Your task to perform on an android device: uninstall "Truecaller" Image 0: 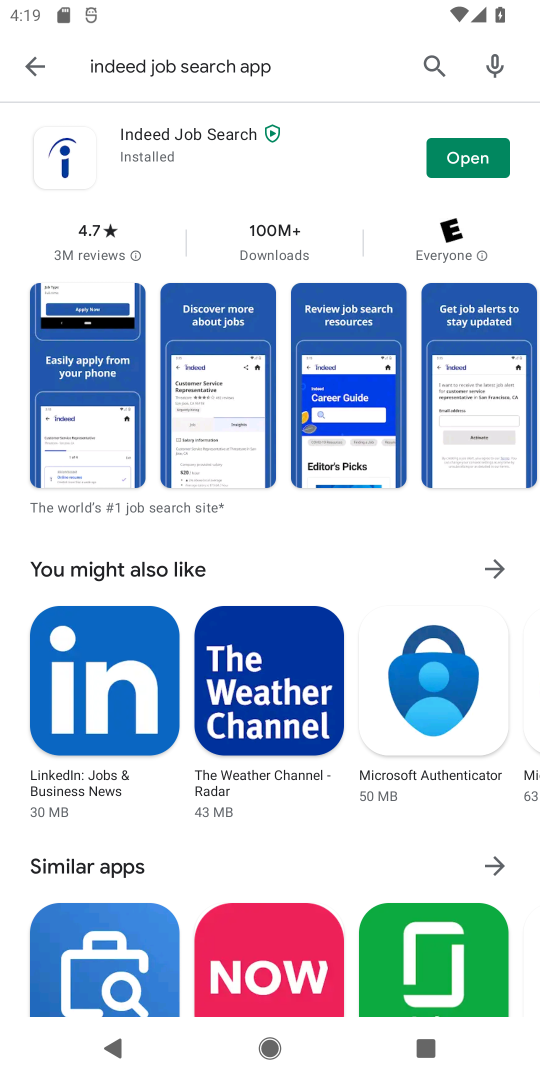
Step 0: click (434, 71)
Your task to perform on an android device: uninstall "Truecaller" Image 1: 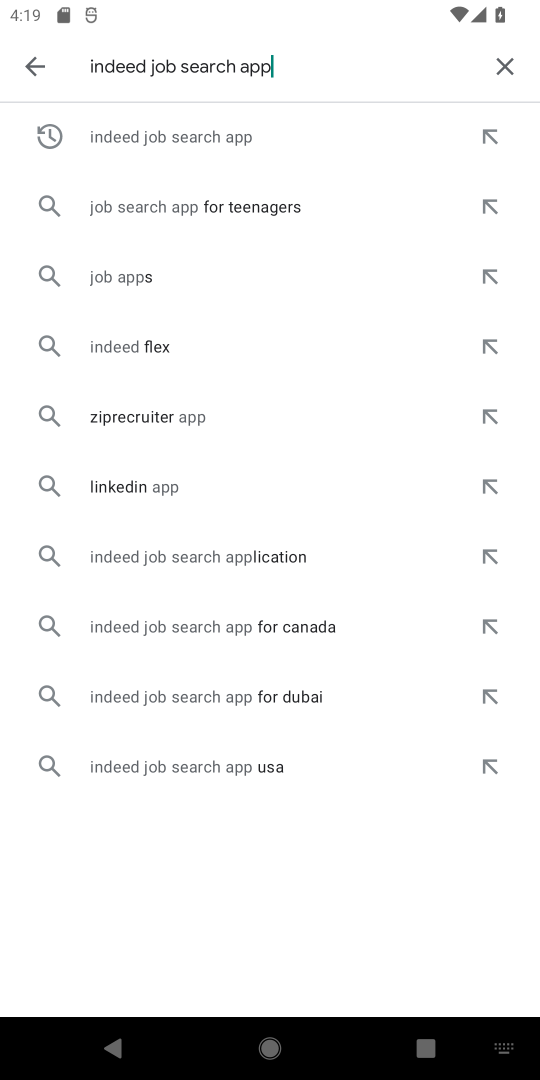
Step 1: click (503, 69)
Your task to perform on an android device: uninstall "Truecaller" Image 2: 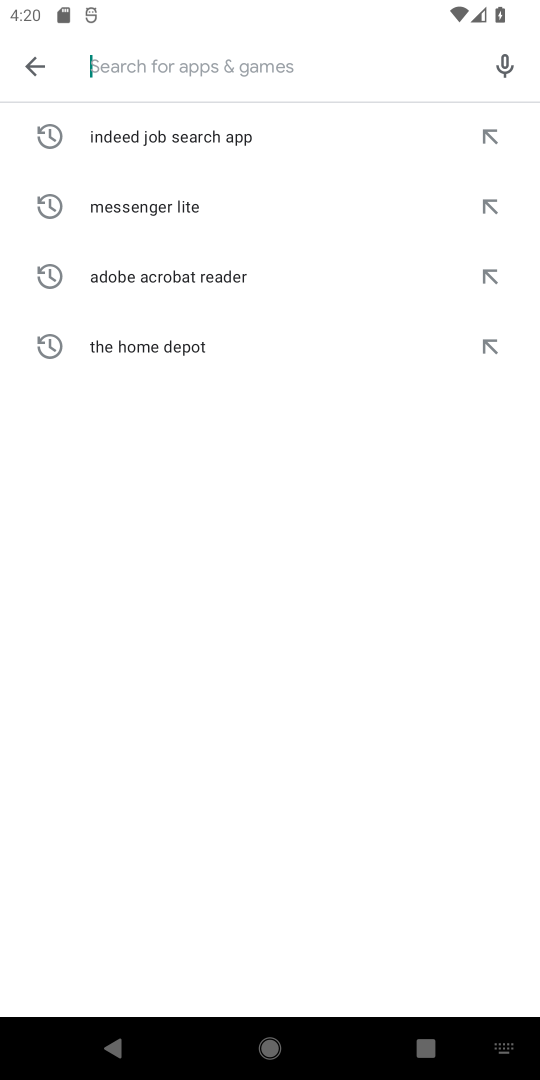
Step 2: type "Truecaller"
Your task to perform on an android device: uninstall "Truecaller" Image 3: 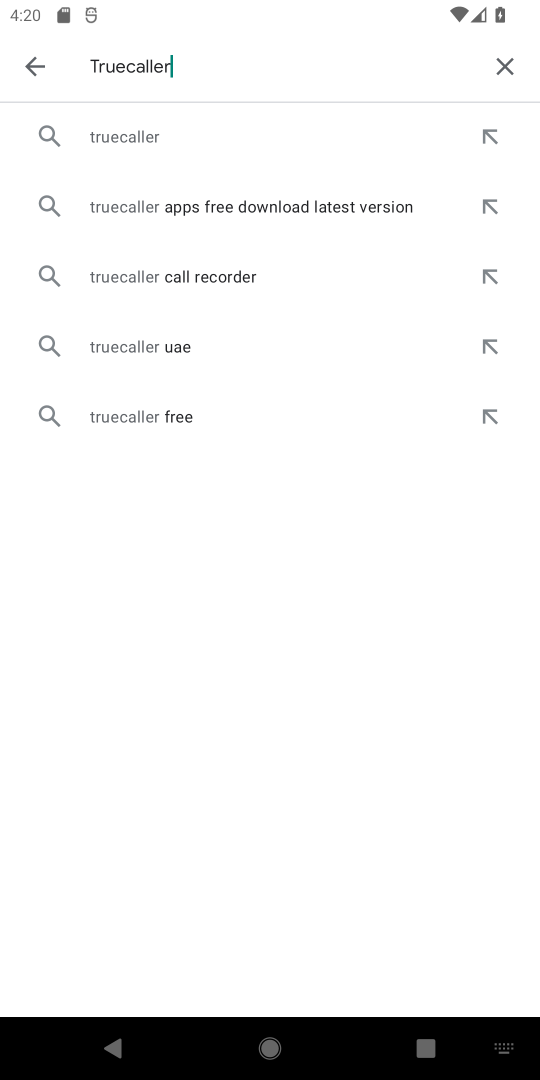
Step 3: click (237, 133)
Your task to perform on an android device: uninstall "Truecaller" Image 4: 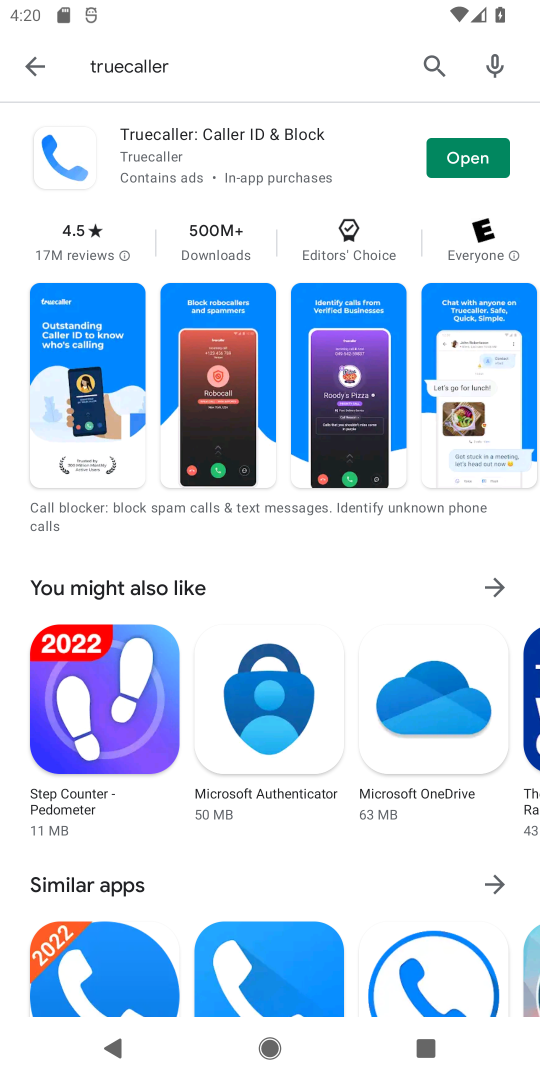
Step 4: click (277, 167)
Your task to perform on an android device: uninstall "Truecaller" Image 5: 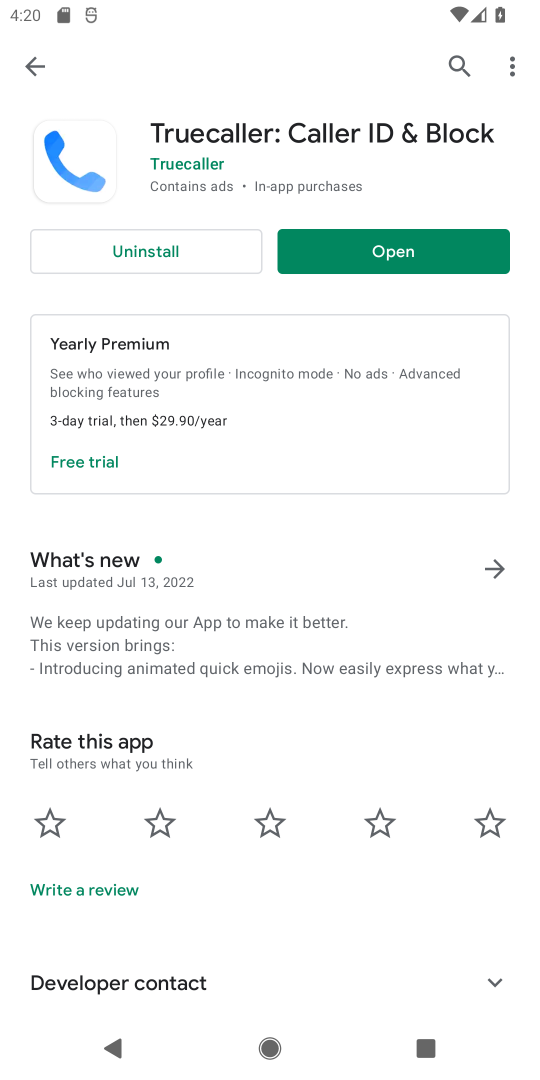
Step 5: click (174, 251)
Your task to perform on an android device: uninstall "Truecaller" Image 6: 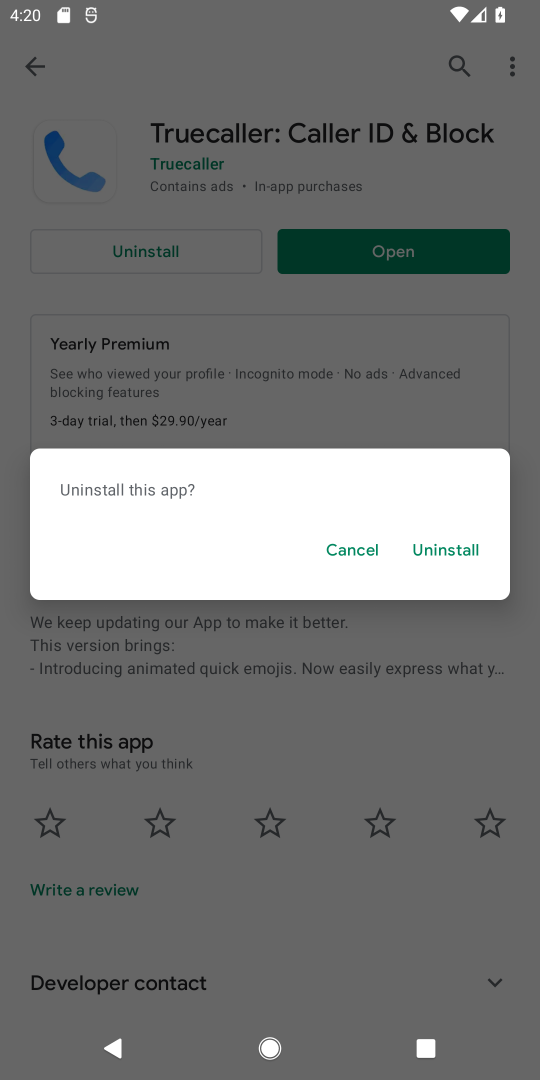
Step 6: click (433, 544)
Your task to perform on an android device: uninstall "Truecaller" Image 7: 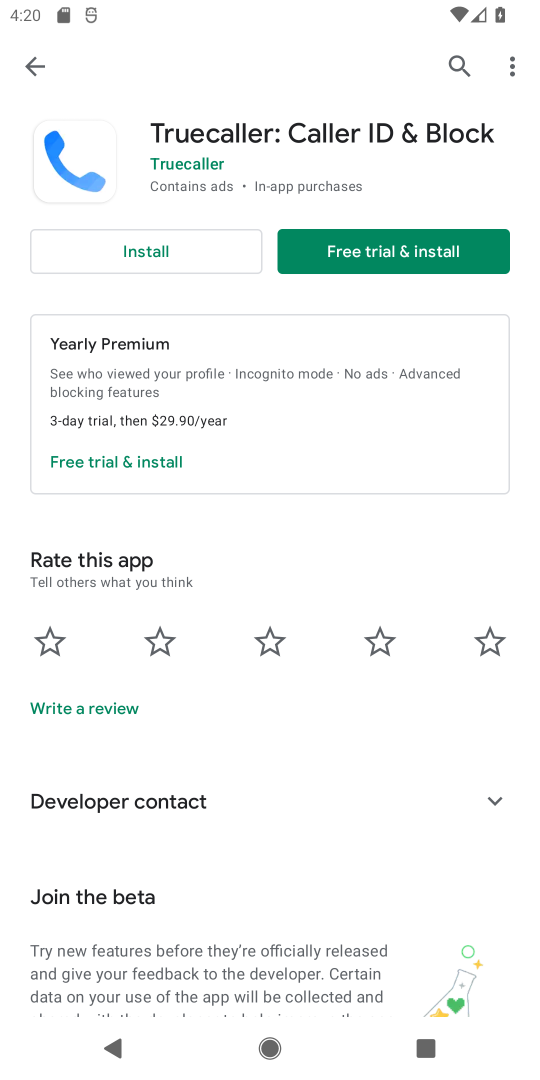
Step 7: task complete